Your task to perform on an android device: Show me popular games on the Play Store Image 0: 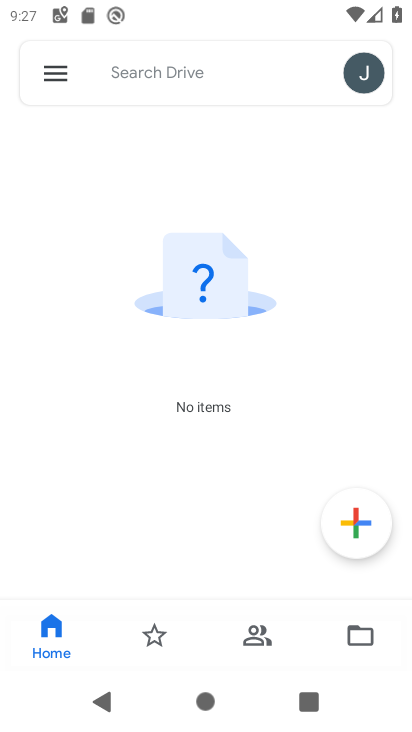
Step 0: press home button
Your task to perform on an android device: Show me popular games on the Play Store Image 1: 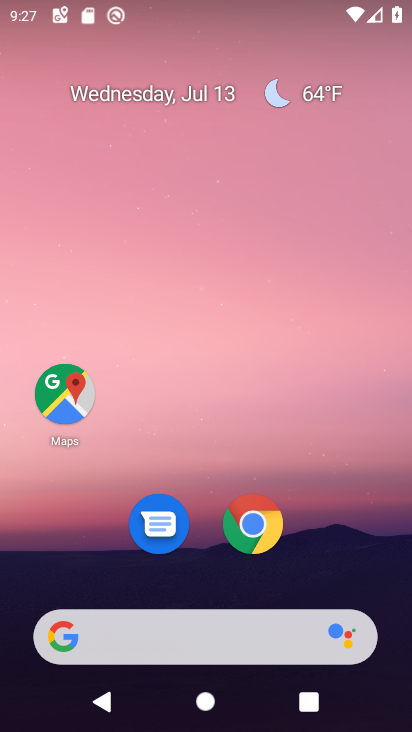
Step 1: drag from (183, 601) to (191, 222)
Your task to perform on an android device: Show me popular games on the Play Store Image 2: 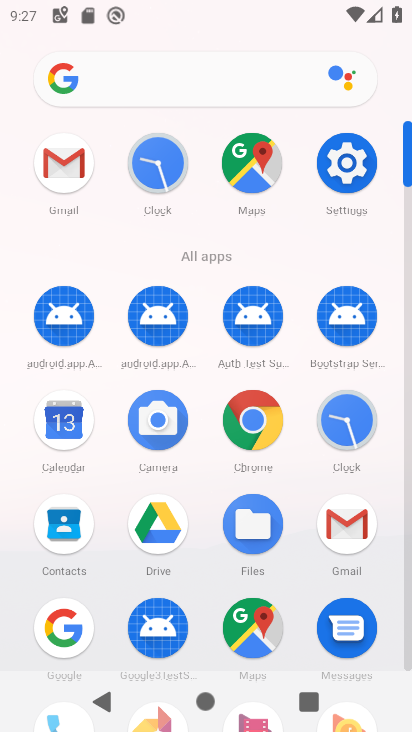
Step 2: drag from (102, 571) to (102, 173)
Your task to perform on an android device: Show me popular games on the Play Store Image 3: 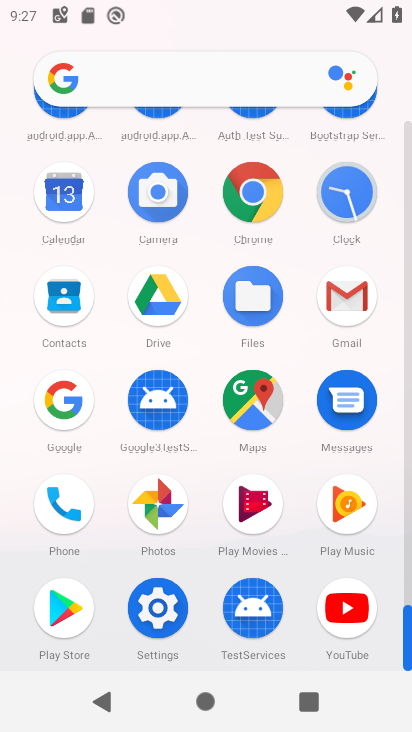
Step 3: click (55, 617)
Your task to perform on an android device: Show me popular games on the Play Store Image 4: 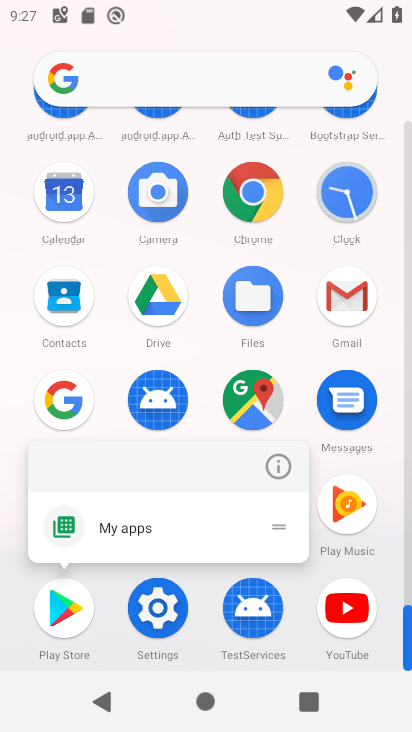
Step 4: click (75, 606)
Your task to perform on an android device: Show me popular games on the Play Store Image 5: 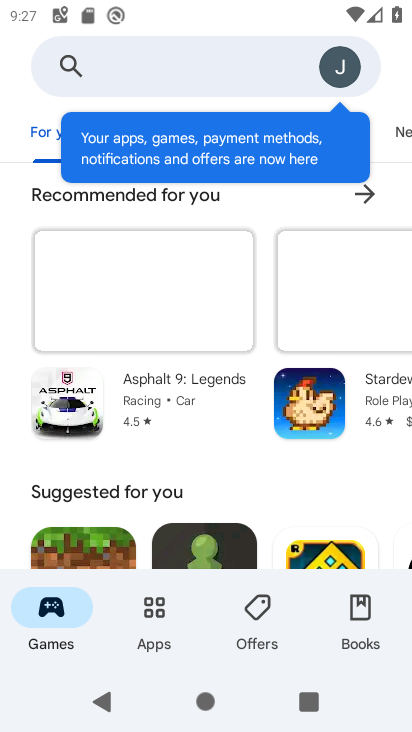
Step 5: click (110, 628)
Your task to perform on an android device: Show me popular games on the Play Store Image 6: 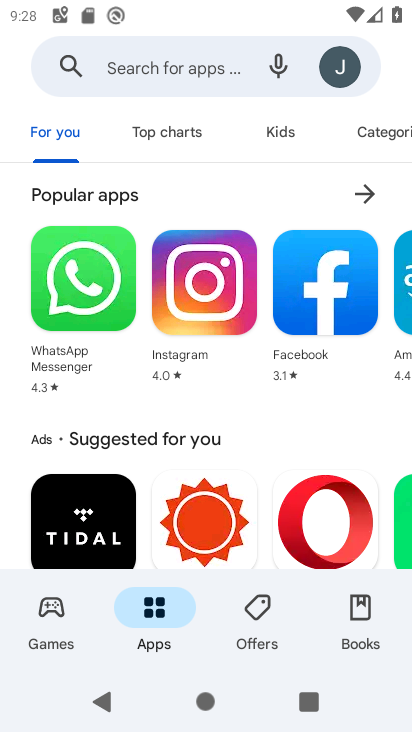
Step 6: click (59, 617)
Your task to perform on an android device: Show me popular games on the Play Store Image 7: 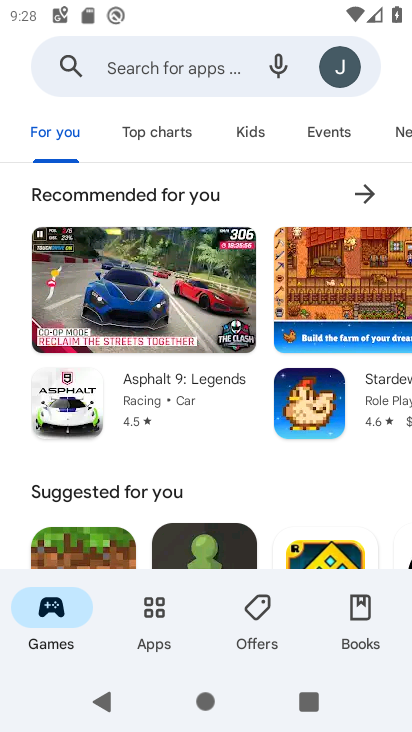
Step 7: task complete